Your task to perform on an android device: Open Chrome and go to the settings page Image 0: 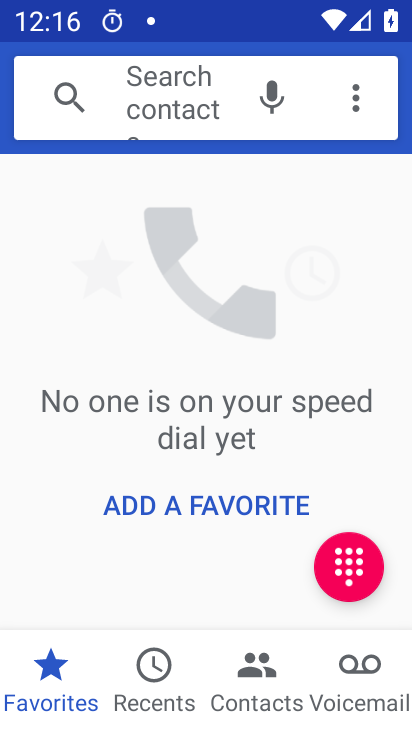
Step 0: press home button
Your task to perform on an android device: Open Chrome and go to the settings page Image 1: 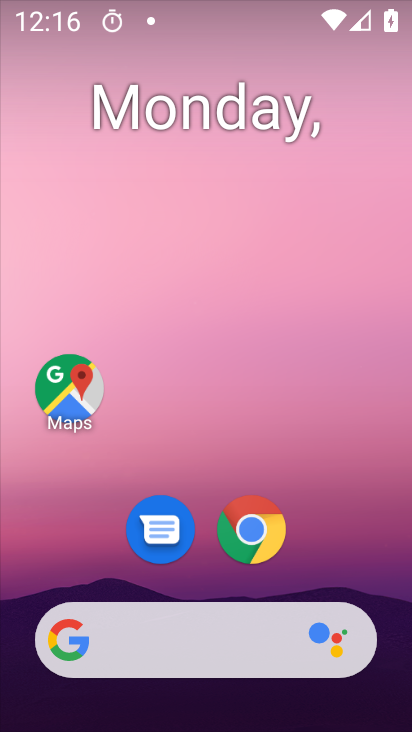
Step 1: click (240, 521)
Your task to perform on an android device: Open Chrome and go to the settings page Image 2: 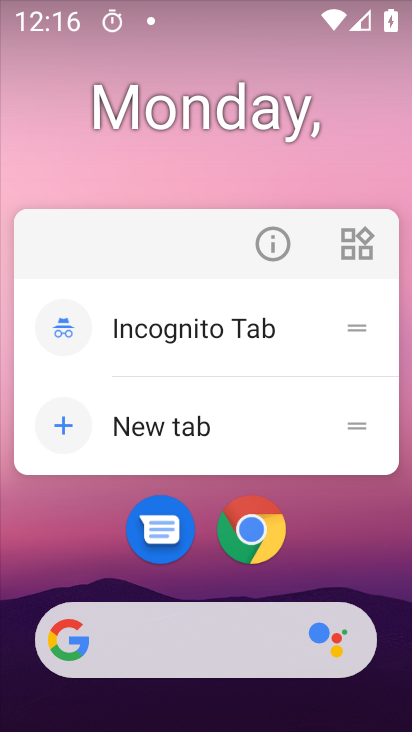
Step 2: click (260, 528)
Your task to perform on an android device: Open Chrome and go to the settings page Image 3: 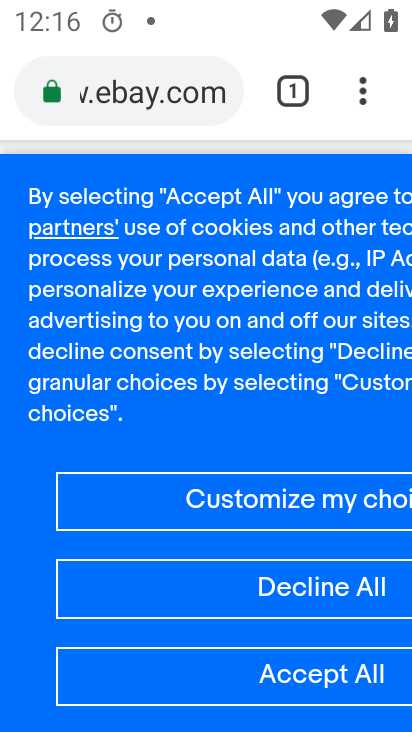
Step 3: task complete